Your task to perform on an android device: toggle data saver in the chrome app Image 0: 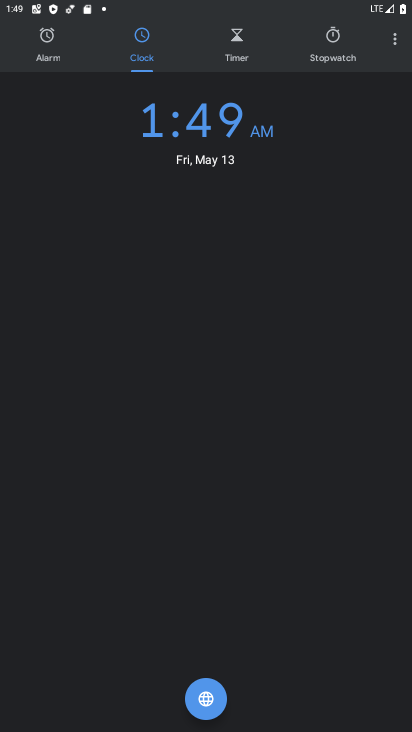
Step 0: press home button
Your task to perform on an android device: toggle data saver in the chrome app Image 1: 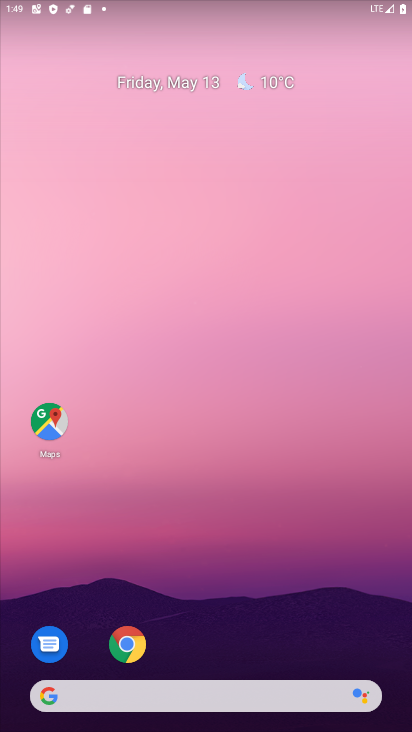
Step 1: drag from (233, 710) to (355, 2)
Your task to perform on an android device: toggle data saver in the chrome app Image 2: 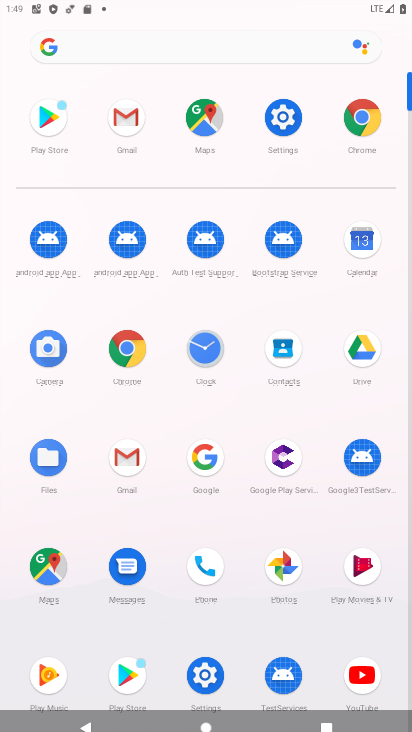
Step 2: click (137, 347)
Your task to perform on an android device: toggle data saver in the chrome app Image 3: 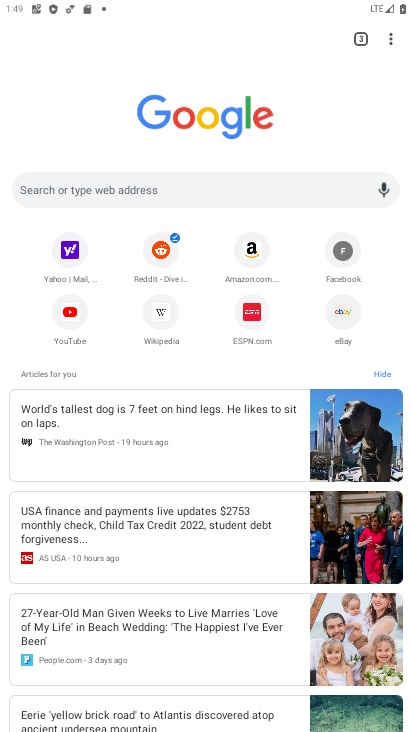
Step 3: drag from (386, 40) to (257, 329)
Your task to perform on an android device: toggle data saver in the chrome app Image 4: 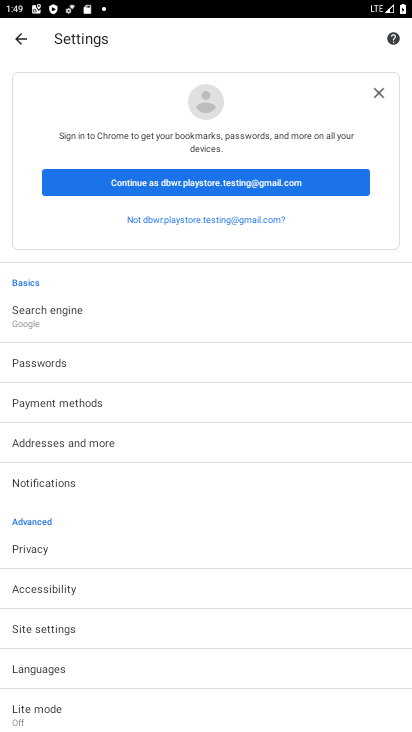
Step 4: drag from (122, 698) to (178, 318)
Your task to perform on an android device: toggle data saver in the chrome app Image 5: 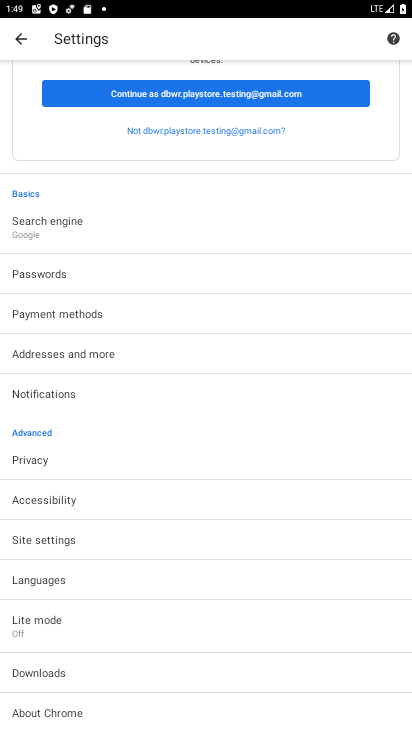
Step 5: click (79, 625)
Your task to perform on an android device: toggle data saver in the chrome app Image 6: 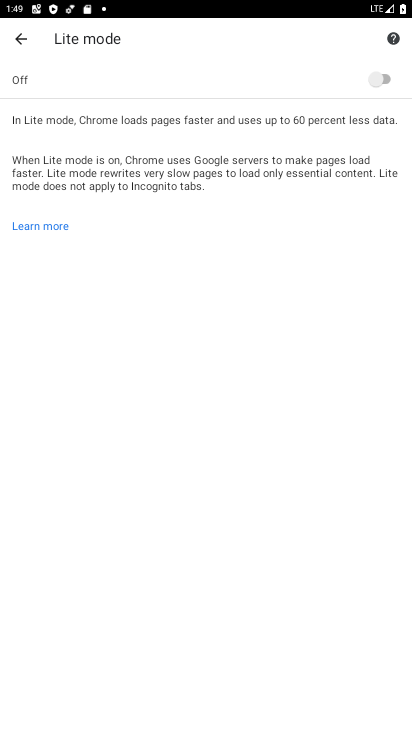
Step 6: click (380, 80)
Your task to perform on an android device: toggle data saver in the chrome app Image 7: 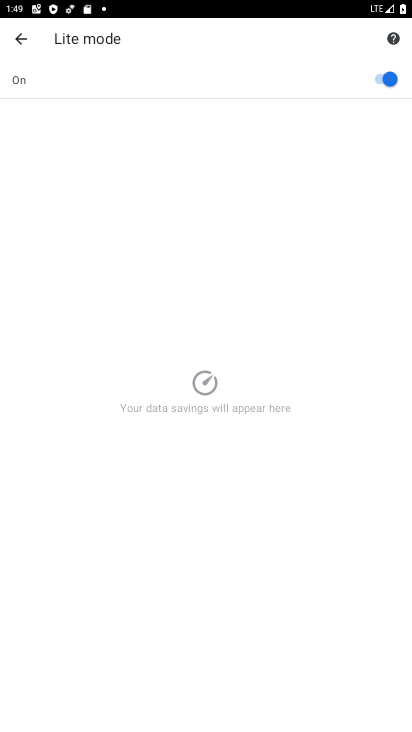
Step 7: task complete